Your task to perform on an android device: Open Google Chrome Image 0: 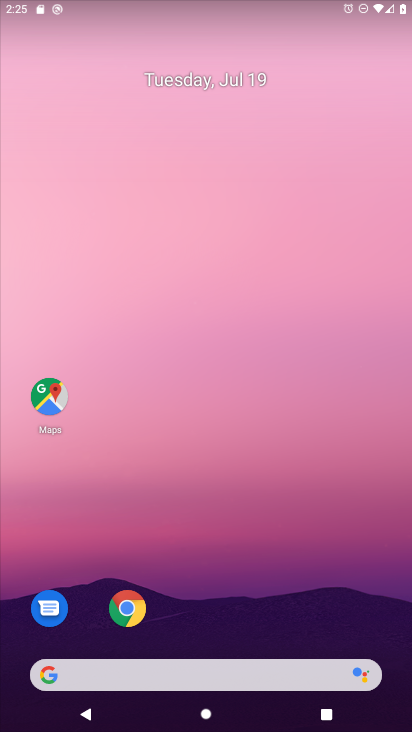
Step 0: drag from (226, 542) to (216, 101)
Your task to perform on an android device: Open Google Chrome Image 1: 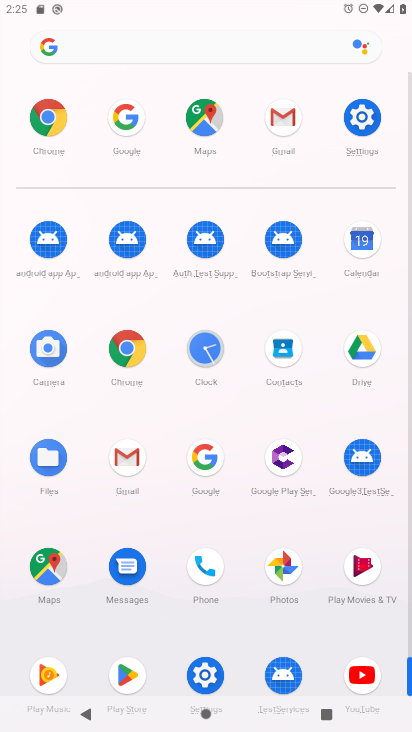
Step 1: click (131, 352)
Your task to perform on an android device: Open Google Chrome Image 2: 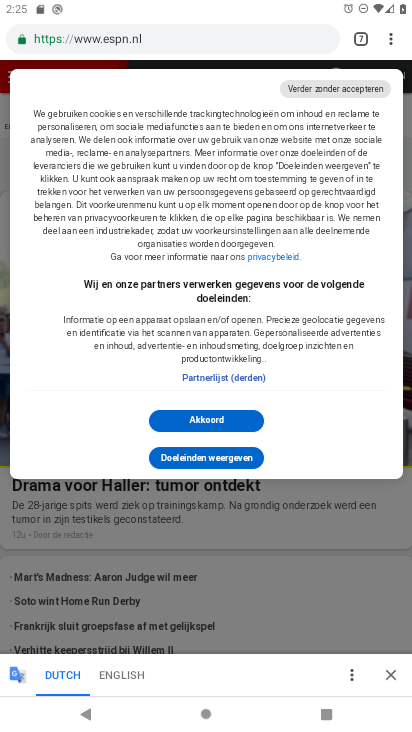
Step 2: click (194, 574)
Your task to perform on an android device: Open Google Chrome Image 3: 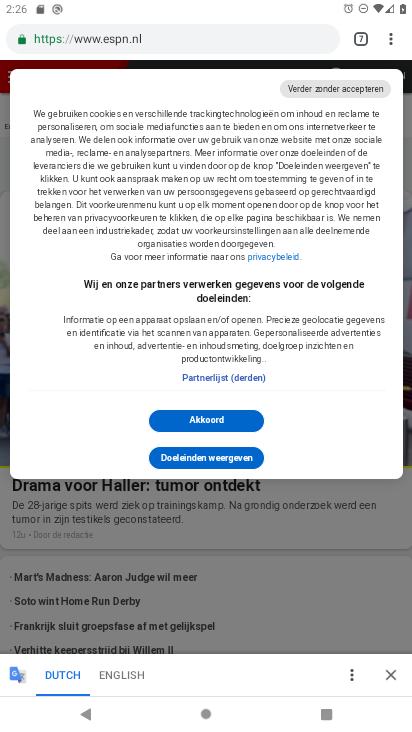
Step 3: task complete